Your task to perform on an android device: make emails show in primary in the gmail app Image 0: 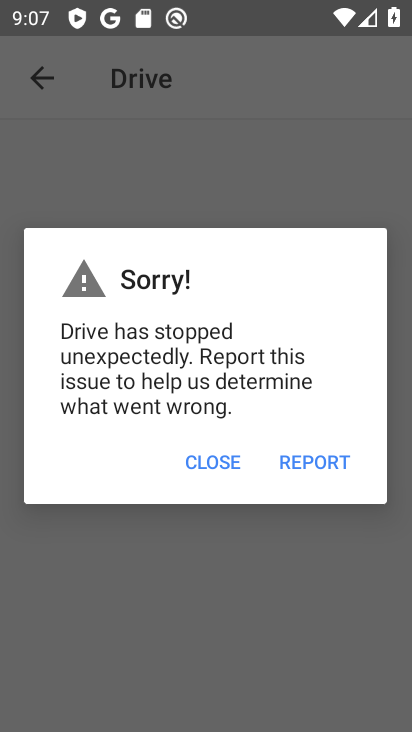
Step 0: press home button
Your task to perform on an android device: make emails show in primary in the gmail app Image 1: 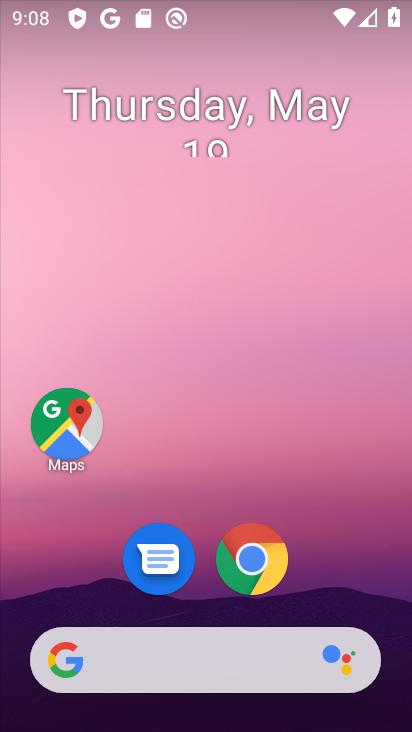
Step 1: drag from (350, 555) to (307, 143)
Your task to perform on an android device: make emails show in primary in the gmail app Image 2: 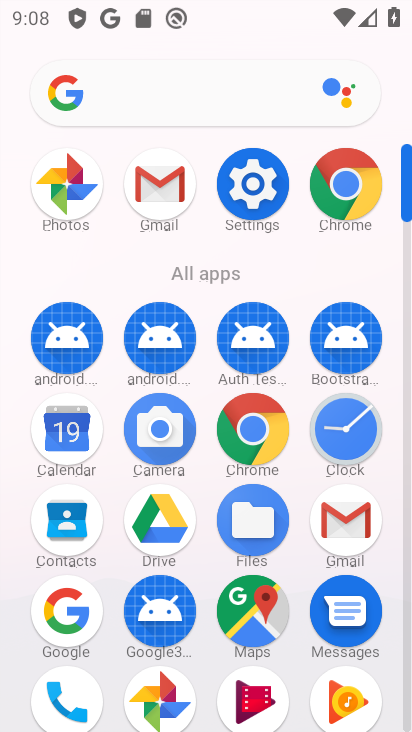
Step 2: click (161, 183)
Your task to perform on an android device: make emails show in primary in the gmail app Image 3: 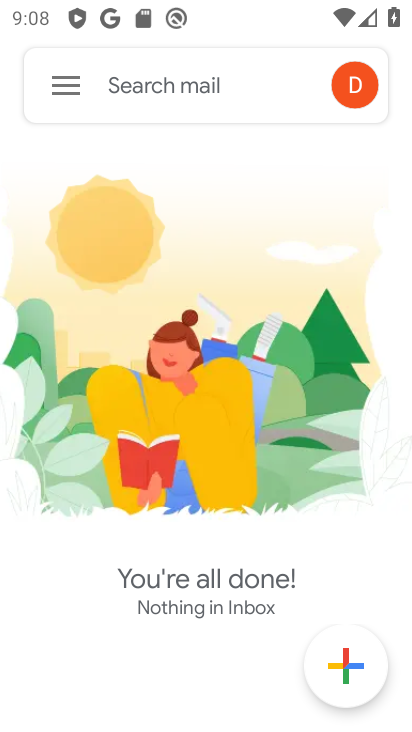
Step 3: click (74, 88)
Your task to perform on an android device: make emails show in primary in the gmail app Image 4: 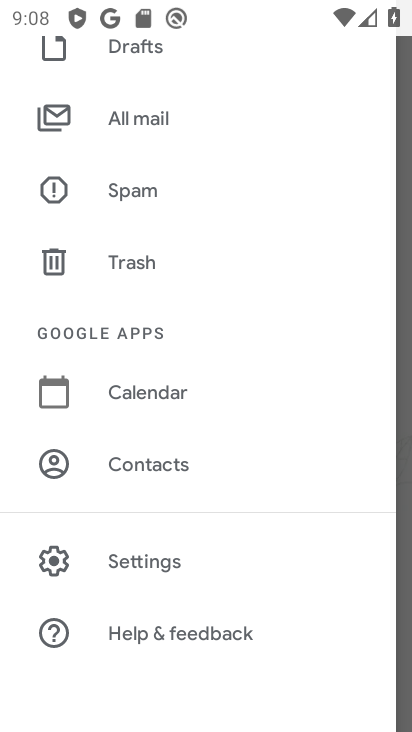
Step 4: drag from (192, 238) to (171, 534)
Your task to perform on an android device: make emails show in primary in the gmail app Image 5: 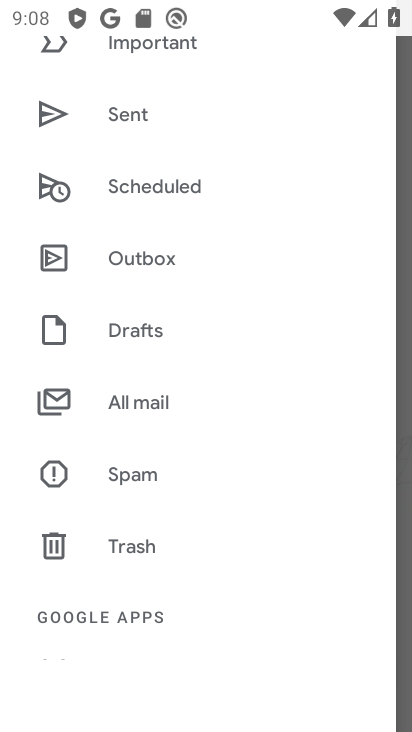
Step 5: drag from (198, 471) to (258, 127)
Your task to perform on an android device: make emails show in primary in the gmail app Image 6: 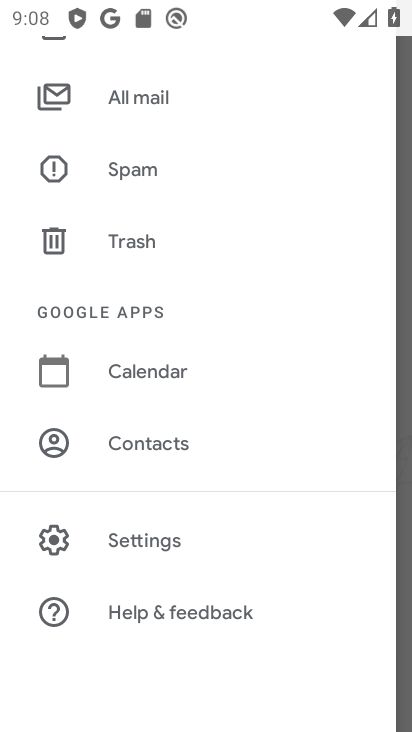
Step 6: click (131, 537)
Your task to perform on an android device: make emails show in primary in the gmail app Image 7: 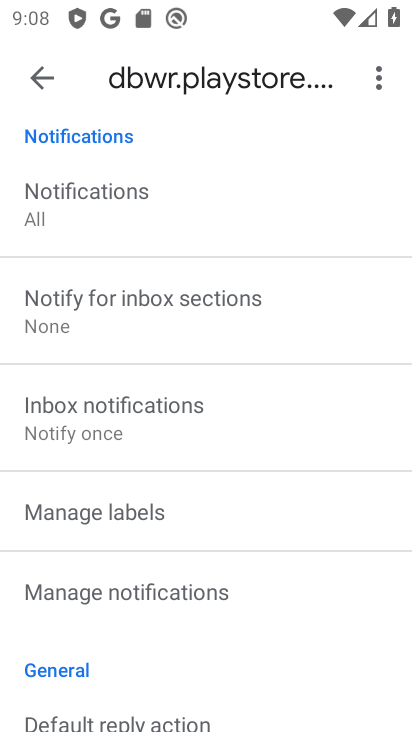
Step 7: drag from (142, 574) to (154, 723)
Your task to perform on an android device: make emails show in primary in the gmail app Image 8: 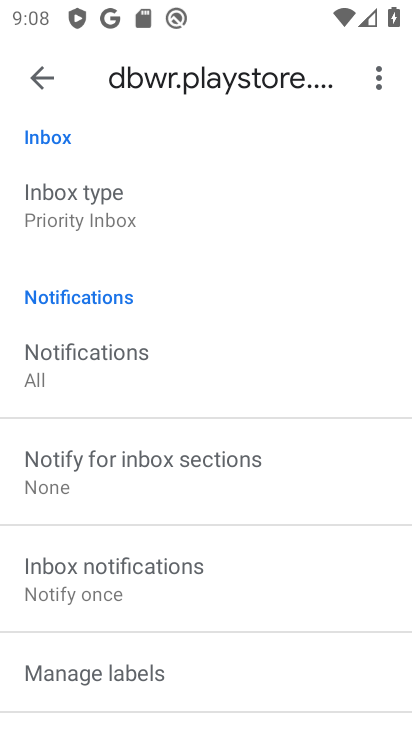
Step 8: click (100, 220)
Your task to perform on an android device: make emails show in primary in the gmail app Image 9: 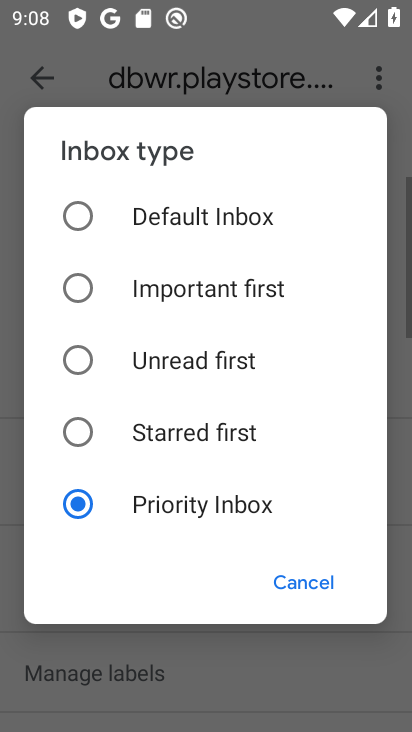
Step 9: click (105, 204)
Your task to perform on an android device: make emails show in primary in the gmail app Image 10: 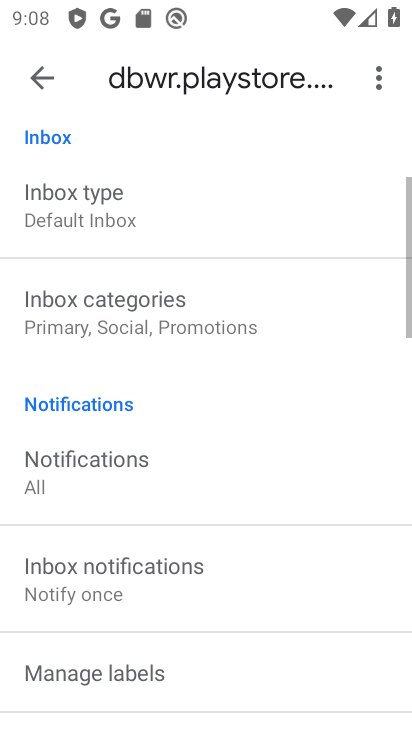
Step 10: click (123, 341)
Your task to perform on an android device: make emails show in primary in the gmail app Image 11: 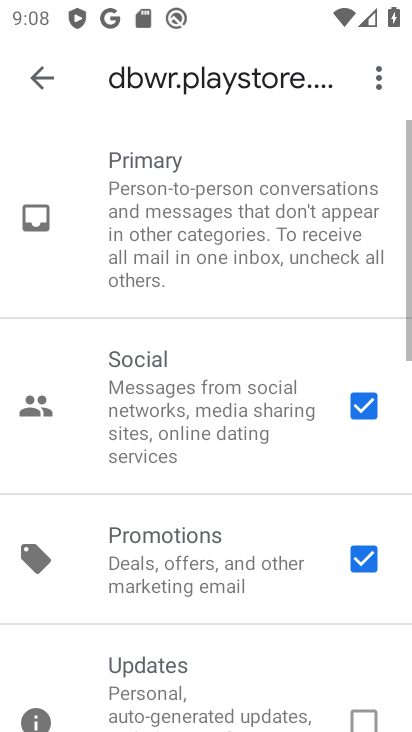
Step 11: task complete